Your task to perform on an android device: Show me recent news Image 0: 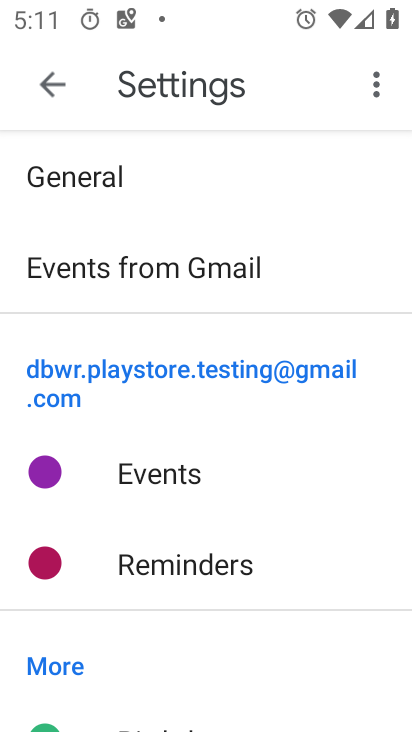
Step 0: press home button
Your task to perform on an android device: Show me recent news Image 1: 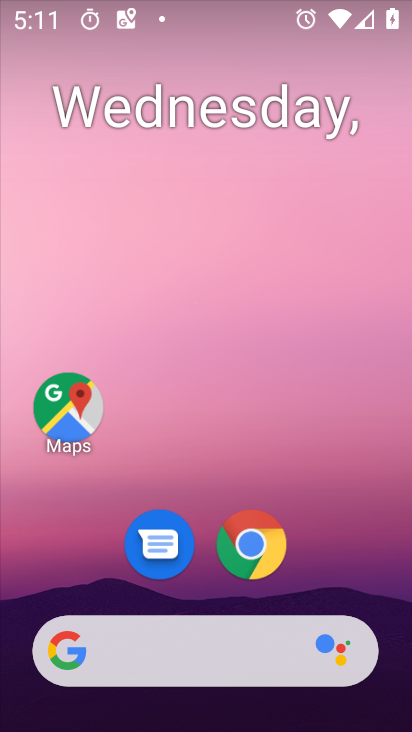
Step 1: drag from (183, 622) to (178, 188)
Your task to perform on an android device: Show me recent news Image 2: 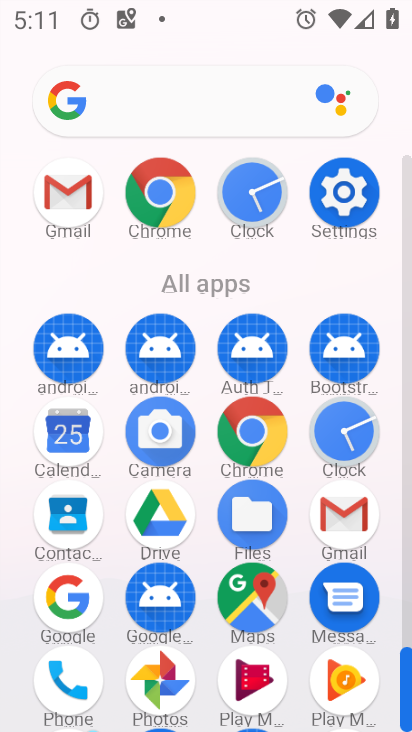
Step 2: click (88, 599)
Your task to perform on an android device: Show me recent news Image 3: 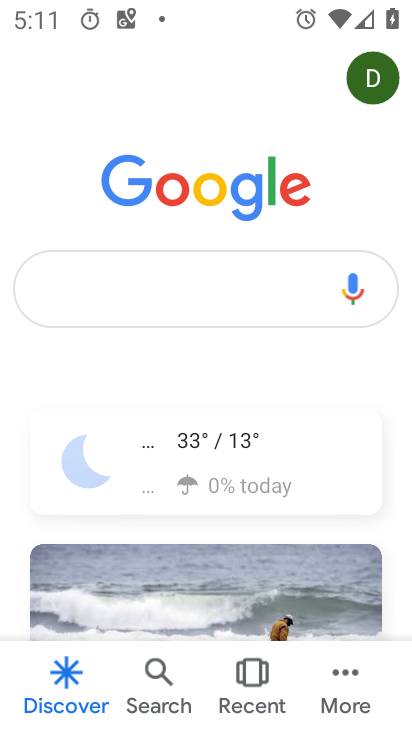
Step 3: click (167, 300)
Your task to perform on an android device: Show me recent news Image 4: 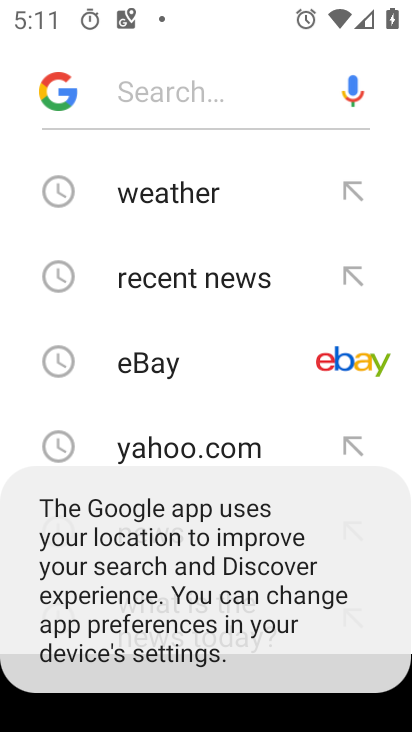
Step 4: click (165, 288)
Your task to perform on an android device: Show me recent news Image 5: 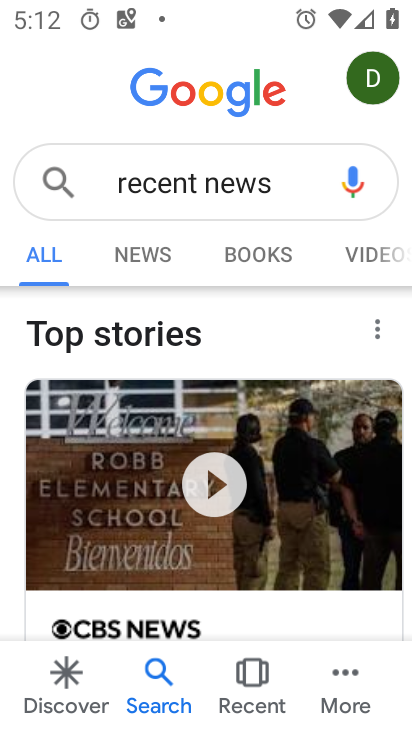
Step 5: task complete